Your task to perform on an android device: toggle show notifications on the lock screen Image 0: 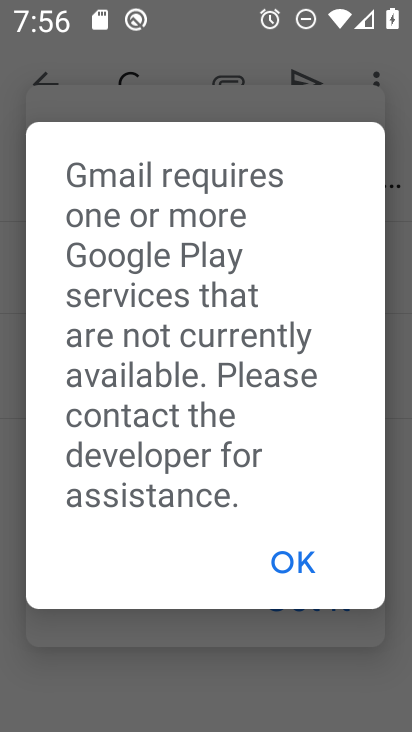
Step 0: press home button
Your task to perform on an android device: toggle show notifications on the lock screen Image 1: 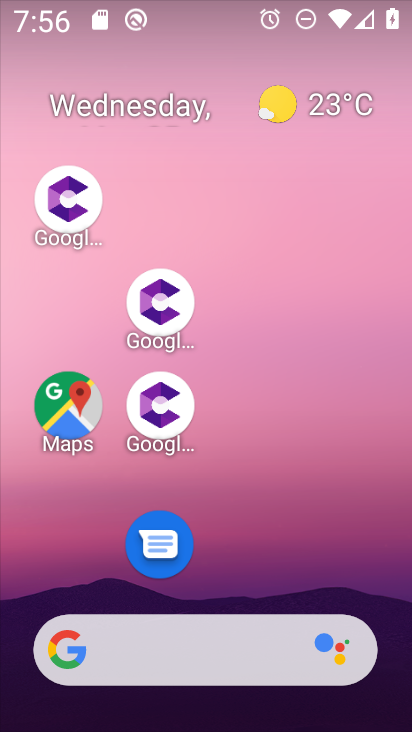
Step 1: drag from (288, 516) to (233, 34)
Your task to perform on an android device: toggle show notifications on the lock screen Image 2: 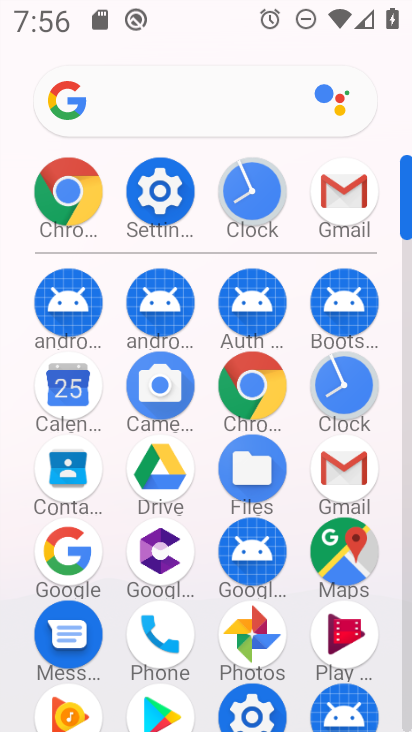
Step 2: click (161, 187)
Your task to perform on an android device: toggle show notifications on the lock screen Image 3: 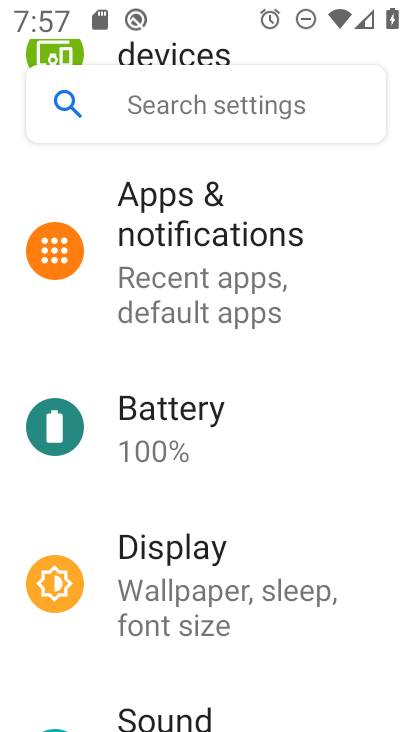
Step 3: click (183, 225)
Your task to perform on an android device: toggle show notifications on the lock screen Image 4: 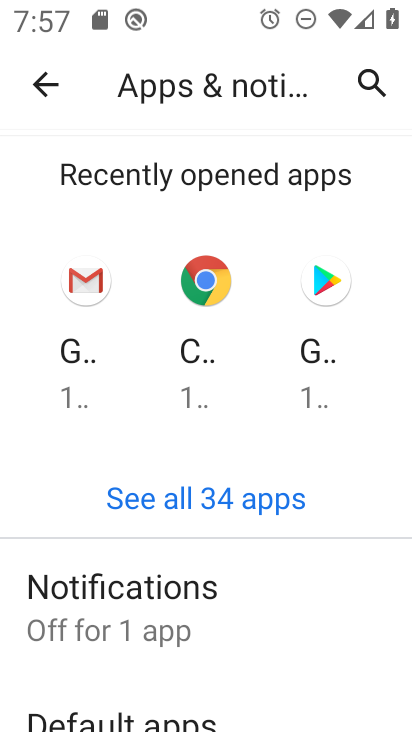
Step 4: drag from (261, 592) to (229, 215)
Your task to perform on an android device: toggle show notifications on the lock screen Image 5: 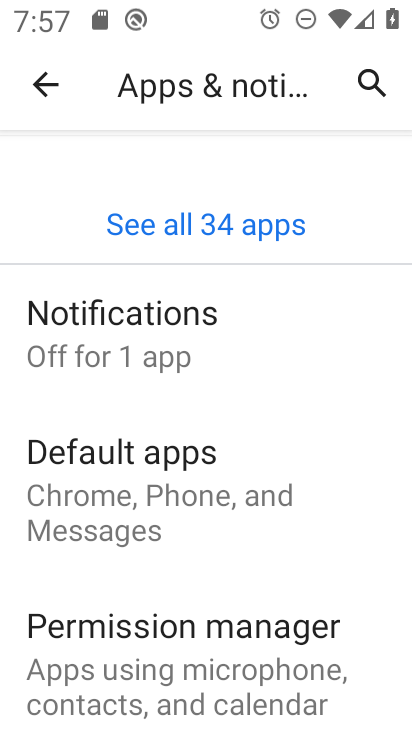
Step 5: click (125, 317)
Your task to perform on an android device: toggle show notifications on the lock screen Image 6: 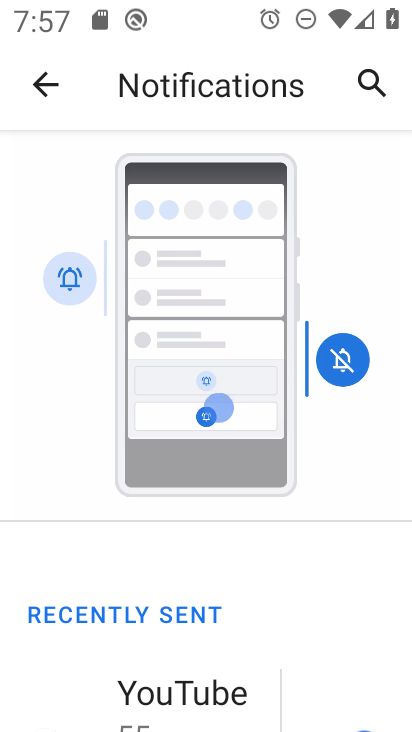
Step 6: drag from (266, 590) to (243, 144)
Your task to perform on an android device: toggle show notifications on the lock screen Image 7: 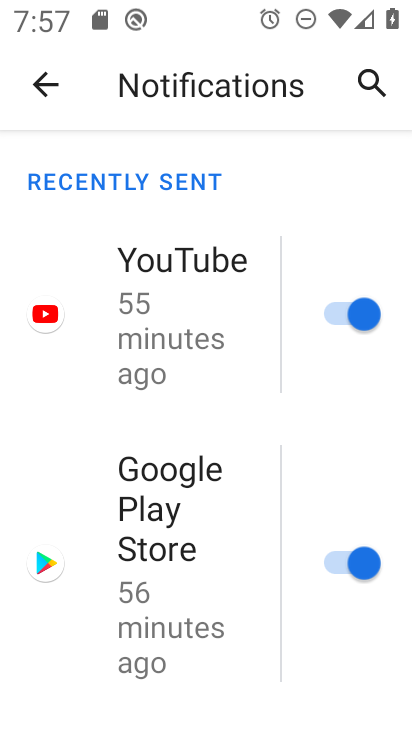
Step 7: drag from (233, 622) to (214, 118)
Your task to perform on an android device: toggle show notifications on the lock screen Image 8: 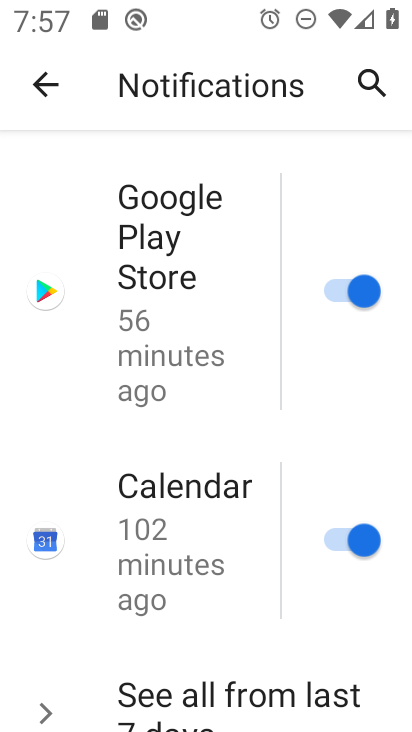
Step 8: drag from (231, 595) to (213, 233)
Your task to perform on an android device: toggle show notifications on the lock screen Image 9: 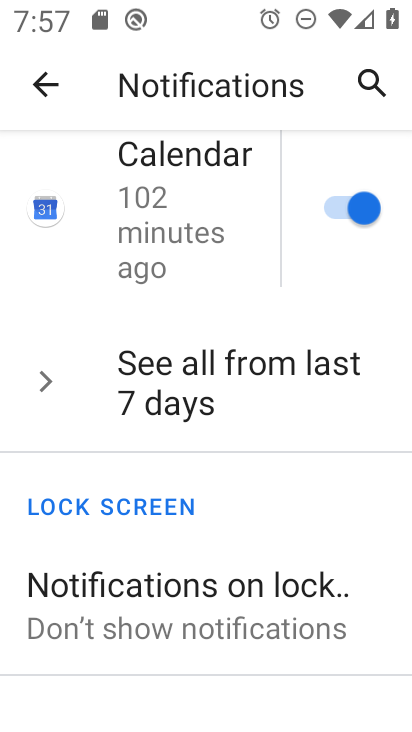
Step 9: click (198, 591)
Your task to perform on an android device: toggle show notifications on the lock screen Image 10: 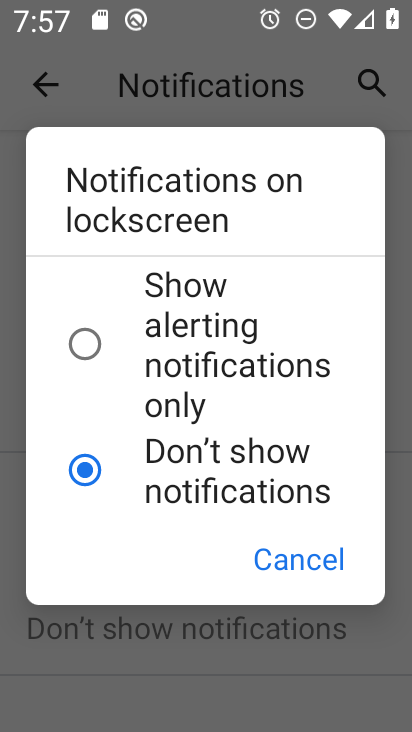
Step 10: drag from (94, 311) to (114, 710)
Your task to perform on an android device: toggle show notifications on the lock screen Image 11: 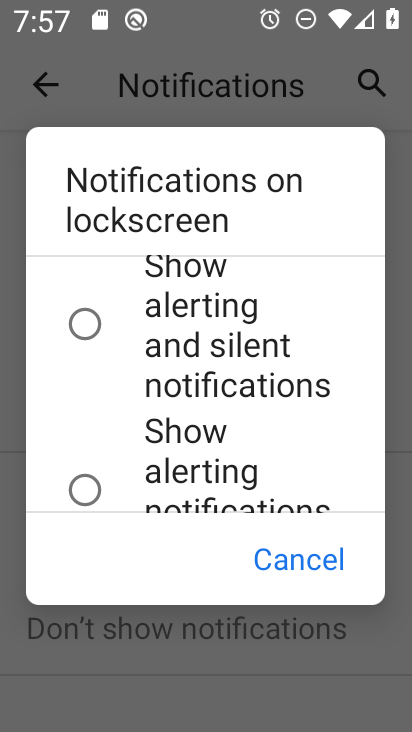
Step 11: click (76, 332)
Your task to perform on an android device: toggle show notifications on the lock screen Image 12: 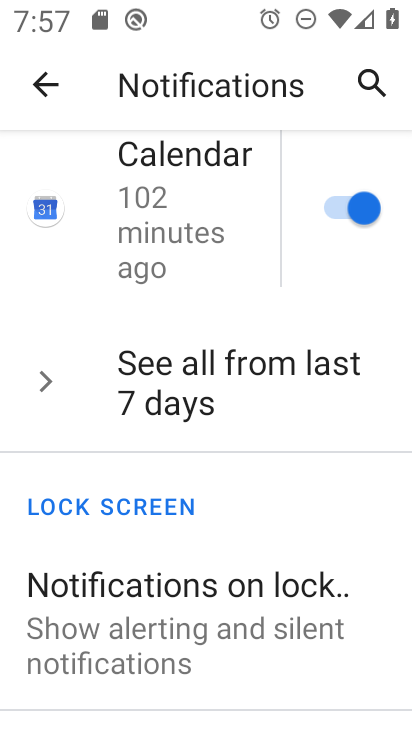
Step 12: task complete